Your task to perform on an android device: Turn off the flashlight Image 0: 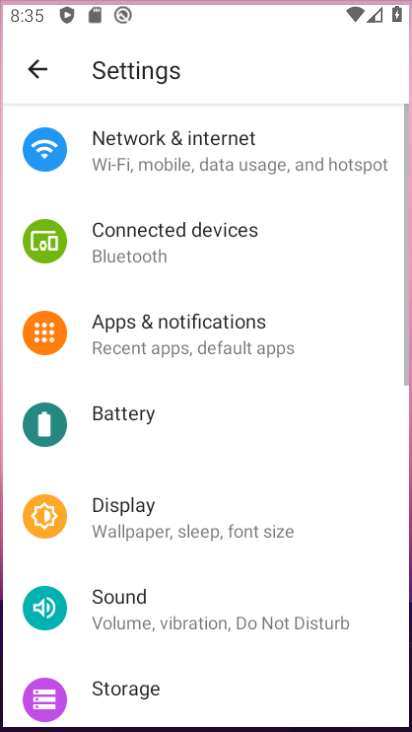
Step 0: click (341, 276)
Your task to perform on an android device: Turn off the flashlight Image 1: 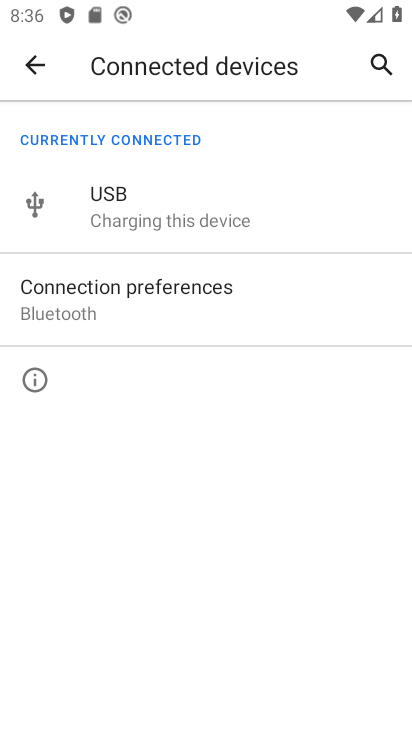
Step 1: click (32, 65)
Your task to perform on an android device: Turn off the flashlight Image 2: 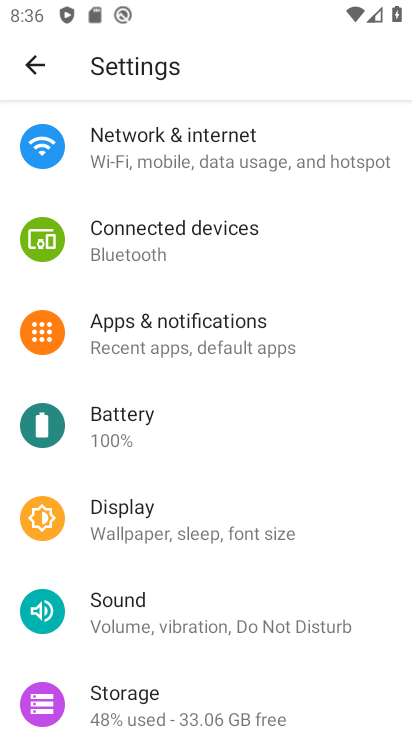
Step 2: drag from (243, 186) to (218, 534)
Your task to perform on an android device: Turn off the flashlight Image 3: 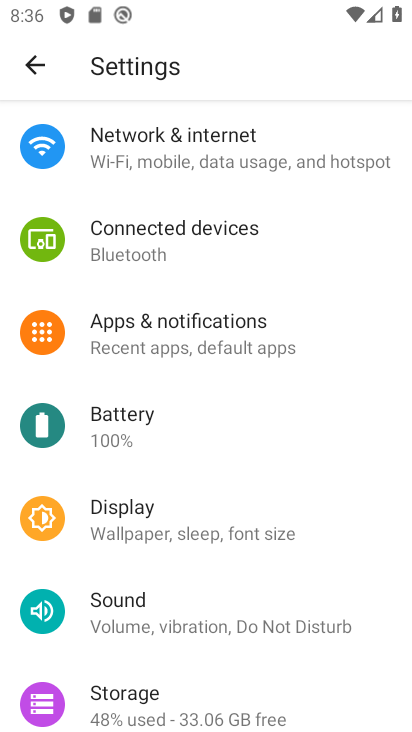
Step 3: drag from (240, 110) to (187, 438)
Your task to perform on an android device: Turn off the flashlight Image 4: 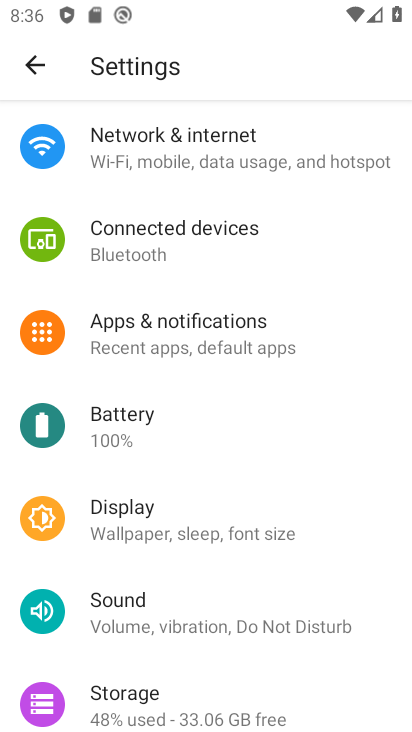
Step 4: click (37, 66)
Your task to perform on an android device: Turn off the flashlight Image 5: 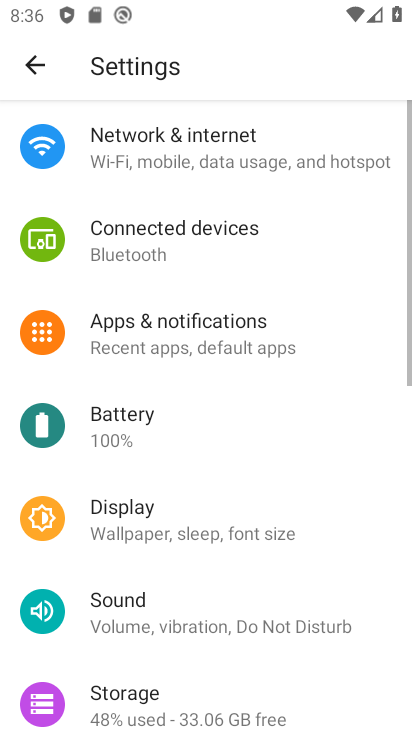
Step 5: drag from (205, 168) to (205, 540)
Your task to perform on an android device: Turn off the flashlight Image 6: 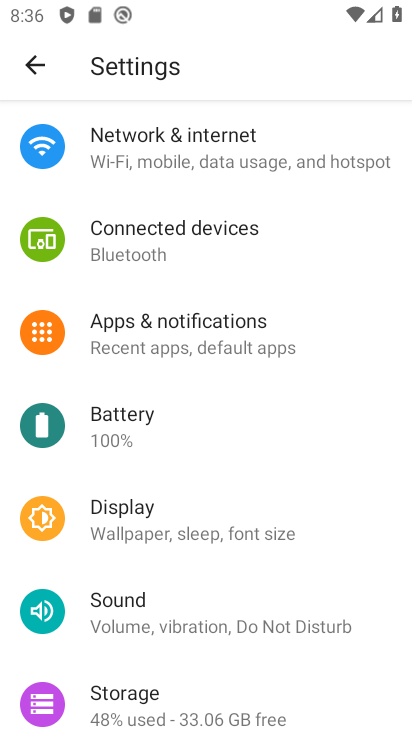
Step 6: click (42, 66)
Your task to perform on an android device: Turn off the flashlight Image 7: 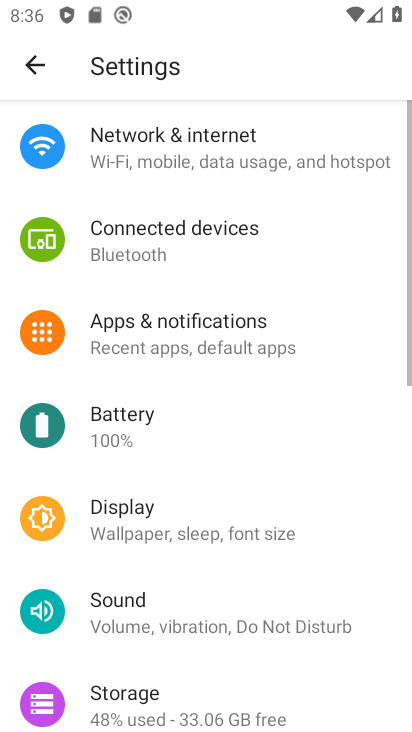
Step 7: drag from (217, 471) to (253, 232)
Your task to perform on an android device: Turn off the flashlight Image 8: 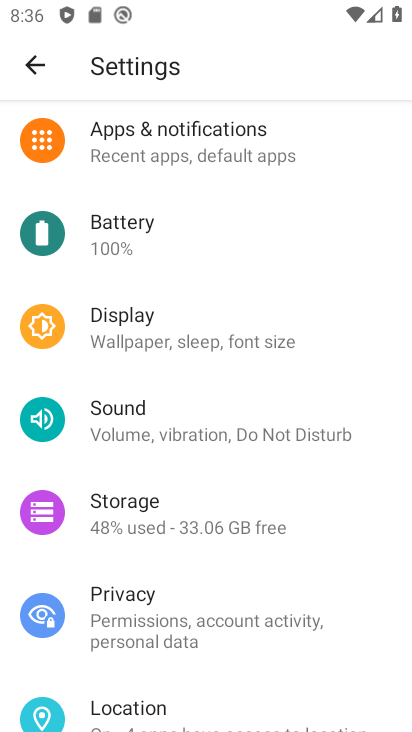
Step 8: drag from (192, 579) to (283, 68)
Your task to perform on an android device: Turn off the flashlight Image 9: 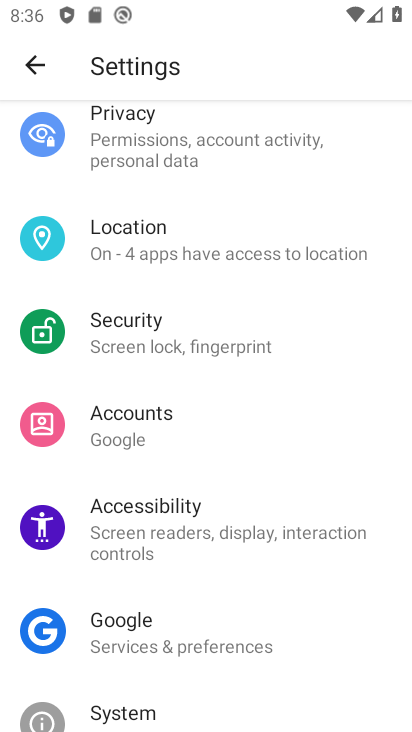
Step 9: drag from (200, 550) to (207, 493)
Your task to perform on an android device: Turn off the flashlight Image 10: 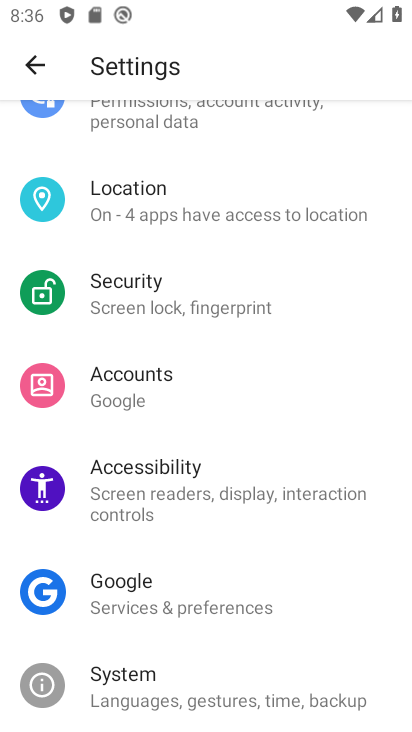
Step 10: click (182, 505)
Your task to perform on an android device: Turn off the flashlight Image 11: 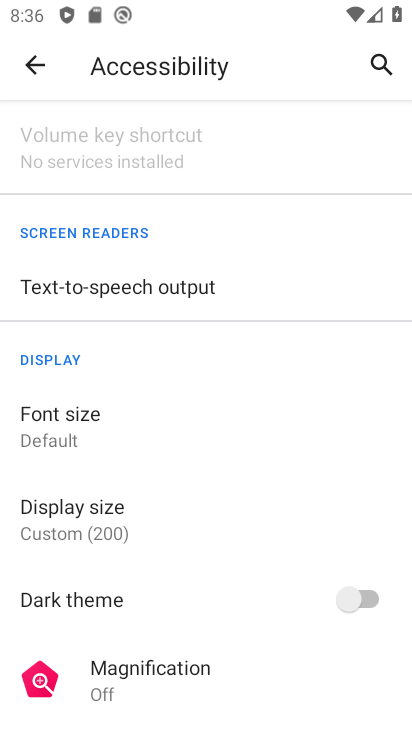
Step 11: task complete